Your task to perform on an android device: turn on data saver in the chrome app Image 0: 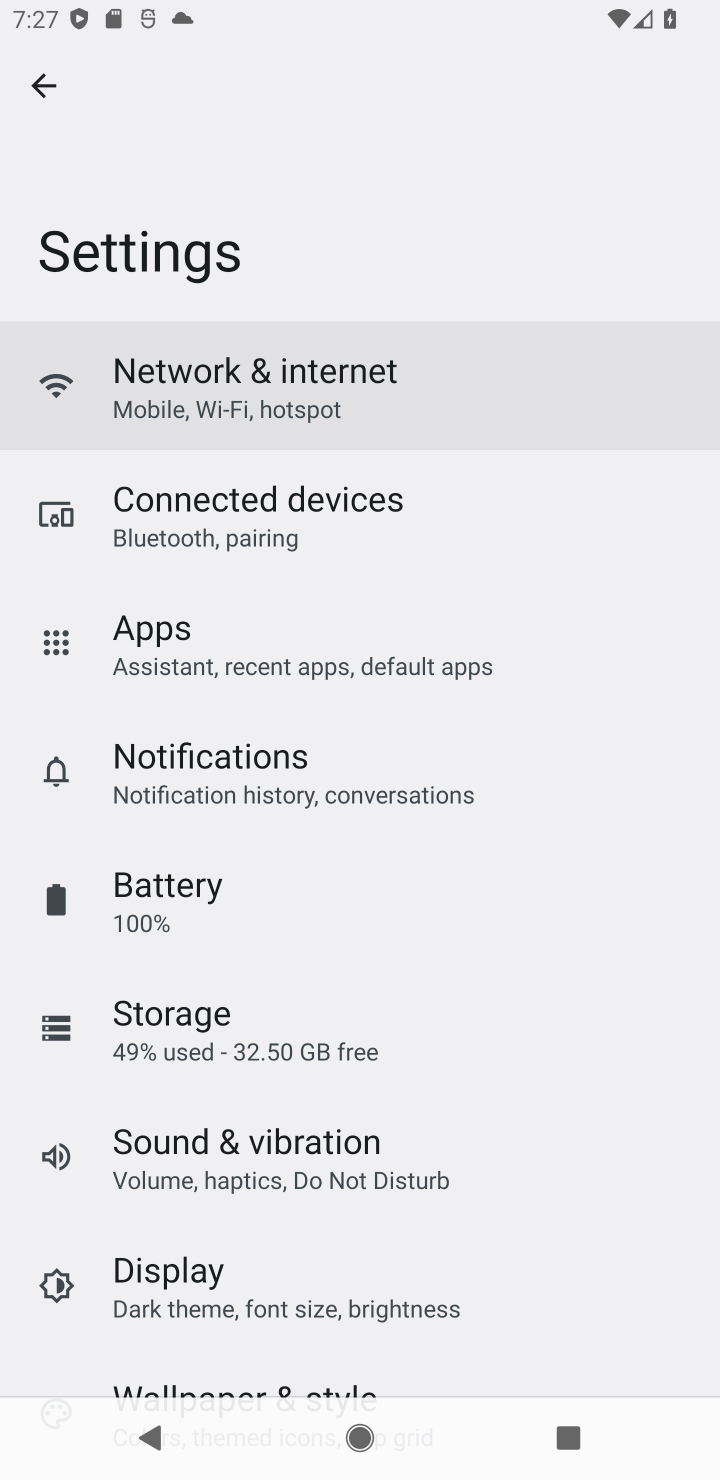
Step 0: click (384, 422)
Your task to perform on an android device: turn on data saver in the chrome app Image 1: 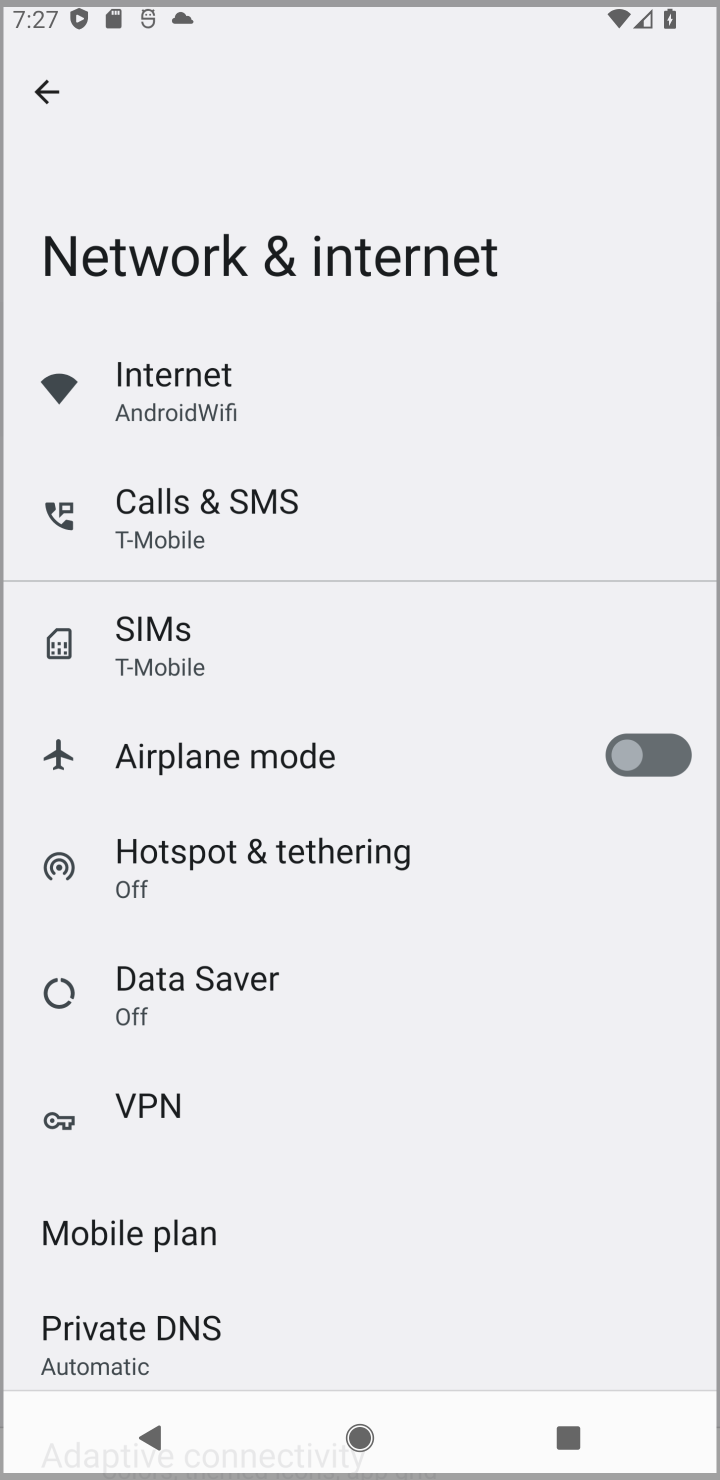
Step 1: task complete